Your task to perform on an android device: open a bookmark in the chrome app Image 0: 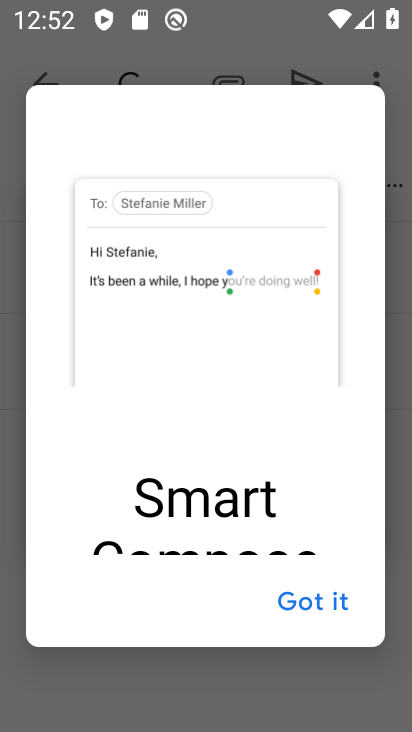
Step 0: press home button
Your task to perform on an android device: open a bookmark in the chrome app Image 1: 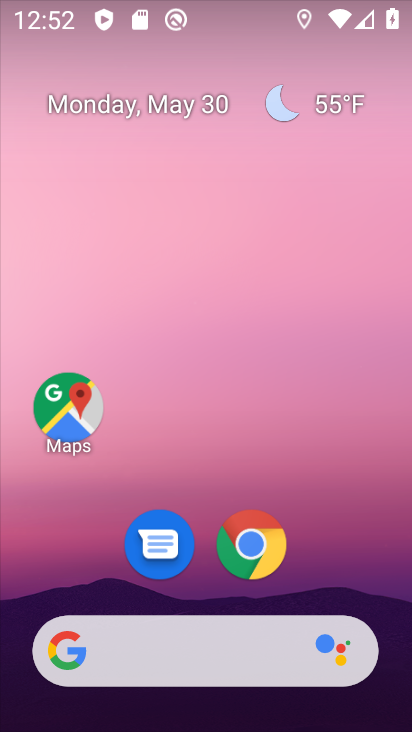
Step 1: click (264, 546)
Your task to perform on an android device: open a bookmark in the chrome app Image 2: 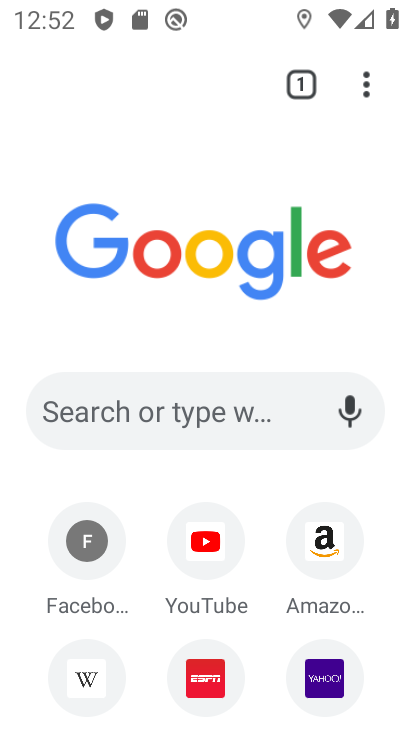
Step 2: click (373, 94)
Your task to perform on an android device: open a bookmark in the chrome app Image 3: 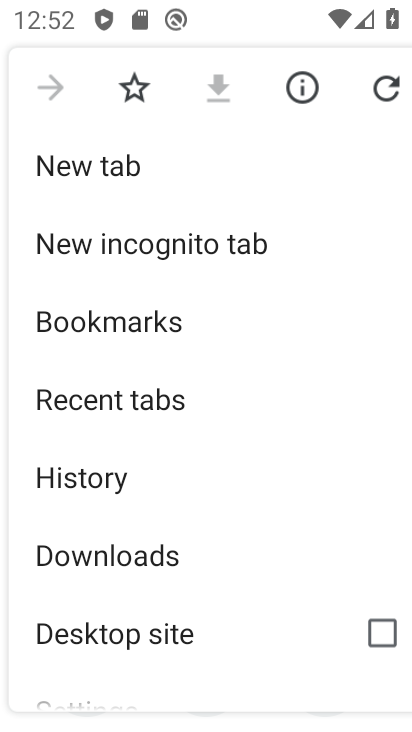
Step 3: click (170, 310)
Your task to perform on an android device: open a bookmark in the chrome app Image 4: 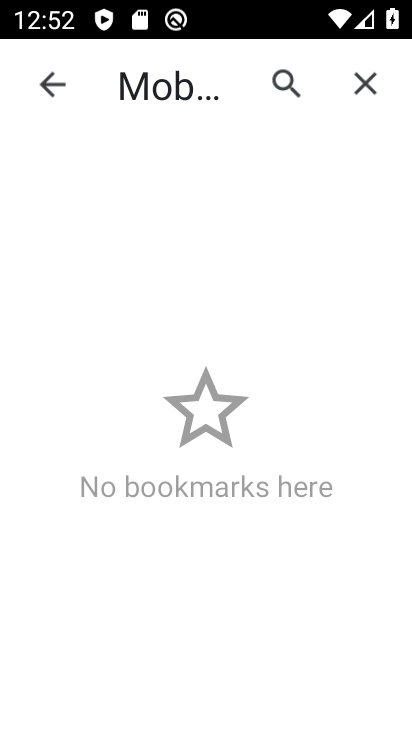
Step 4: task complete